Your task to perform on an android device: find snoozed emails in the gmail app Image 0: 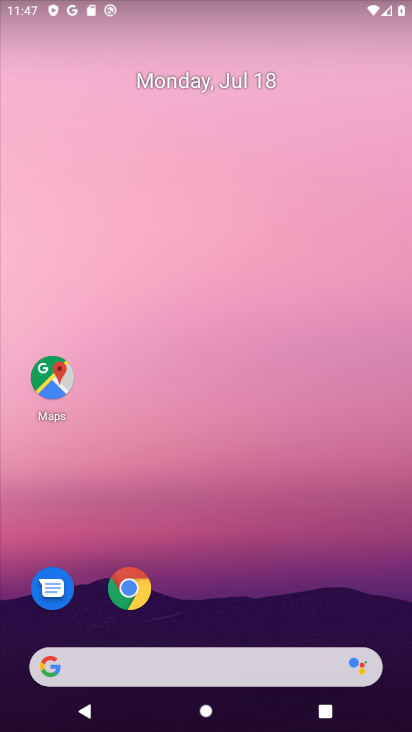
Step 0: drag from (165, 601) to (229, 21)
Your task to perform on an android device: find snoozed emails in the gmail app Image 1: 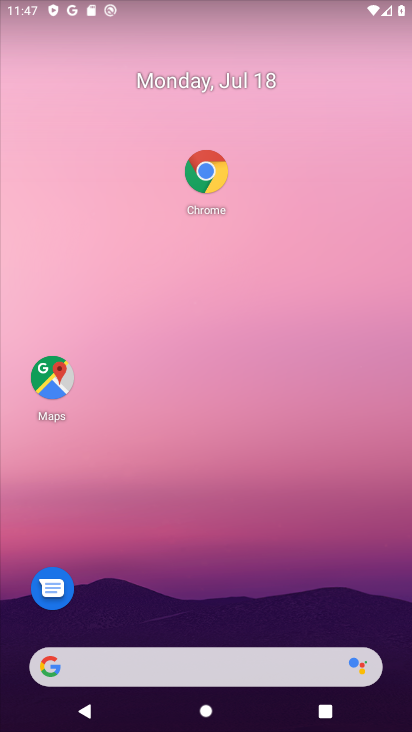
Step 1: drag from (179, 622) to (114, 41)
Your task to perform on an android device: find snoozed emails in the gmail app Image 2: 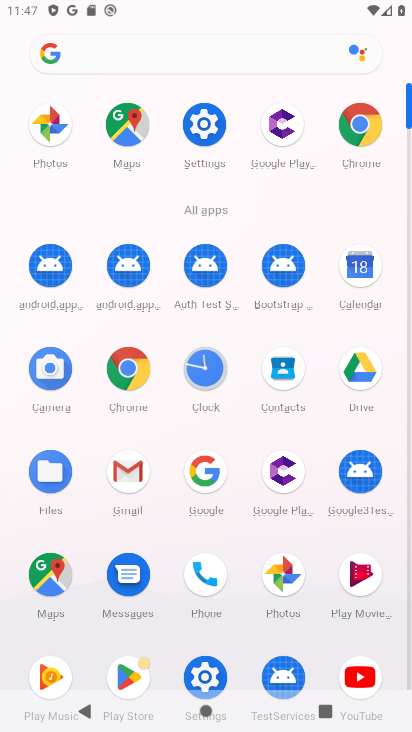
Step 2: click (114, 473)
Your task to perform on an android device: find snoozed emails in the gmail app Image 3: 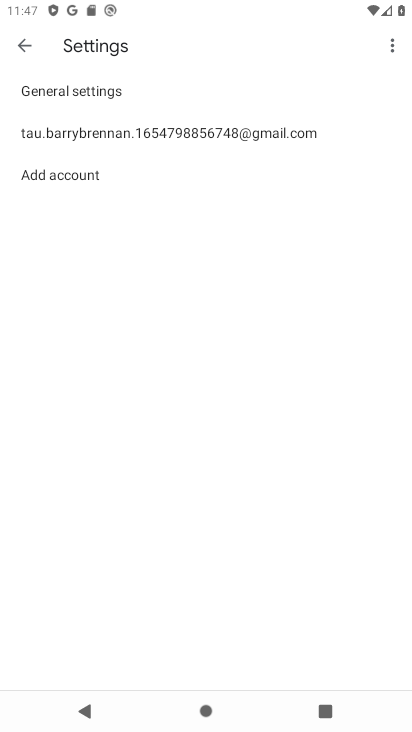
Step 3: click (21, 58)
Your task to perform on an android device: find snoozed emails in the gmail app Image 4: 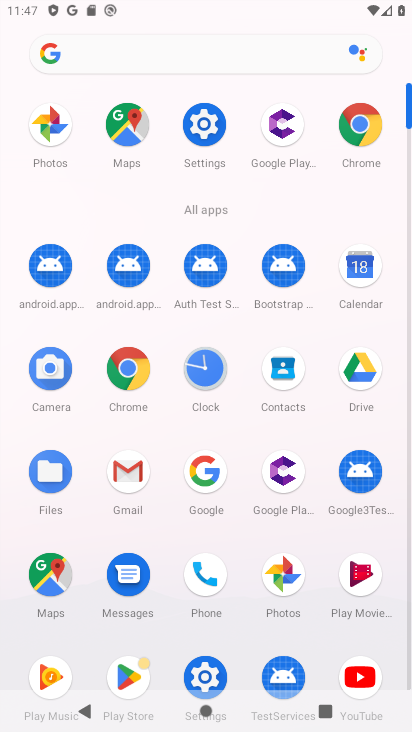
Step 4: click (127, 472)
Your task to perform on an android device: find snoozed emails in the gmail app Image 5: 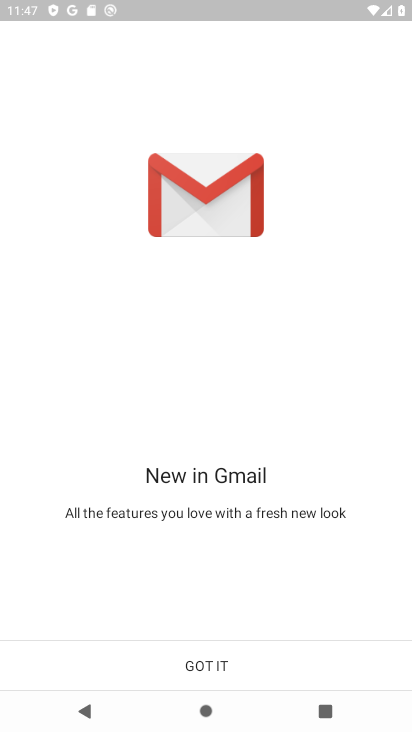
Step 5: click (197, 678)
Your task to perform on an android device: find snoozed emails in the gmail app Image 6: 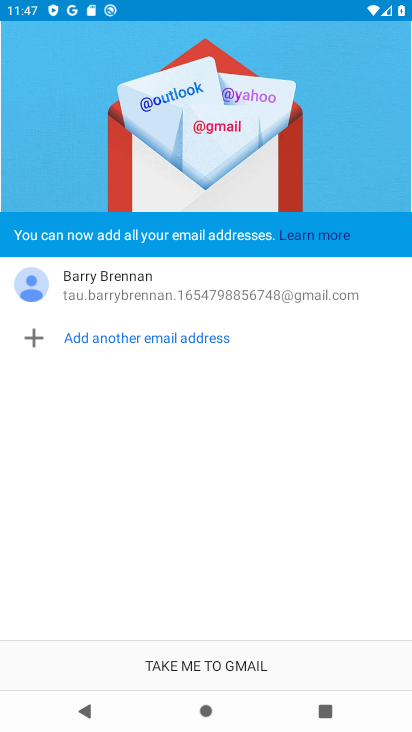
Step 6: click (197, 678)
Your task to perform on an android device: find snoozed emails in the gmail app Image 7: 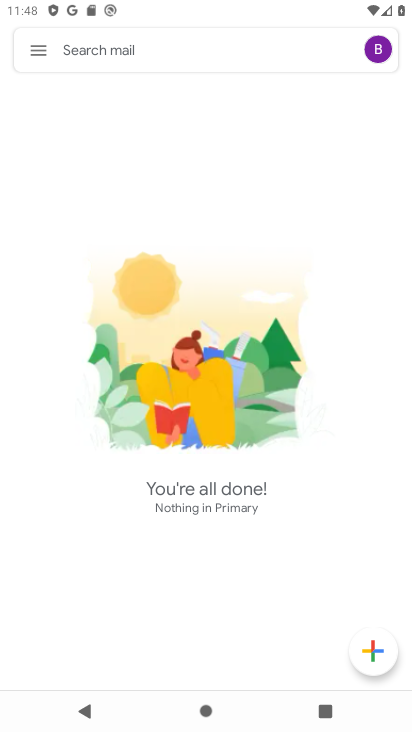
Step 7: click (40, 38)
Your task to perform on an android device: find snoozed emails in the gmail app Image 8: 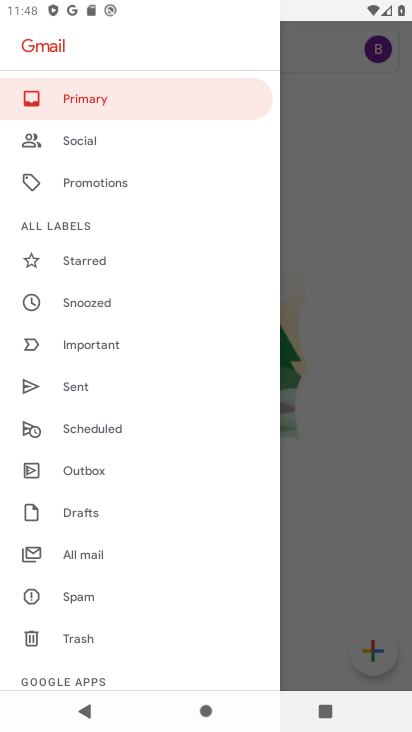
Step 8: click (92, 316)
Your task to perform on an android device: find snoozed emails in the gmail app Image 9: 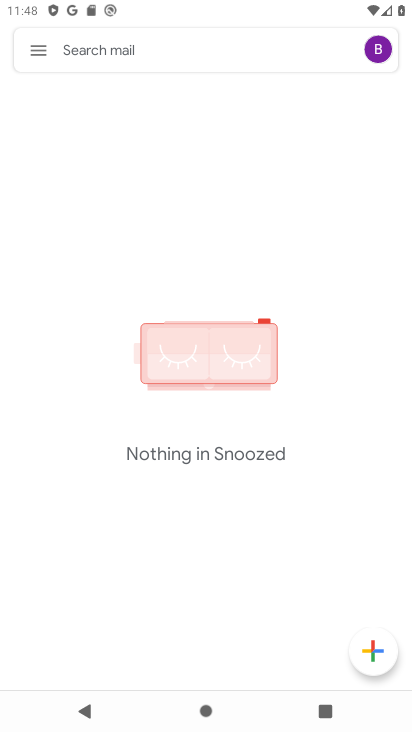
Step 9: task complete